Your task to perform on an android device: Search for seafood restaurants on Google Maps Image 0: 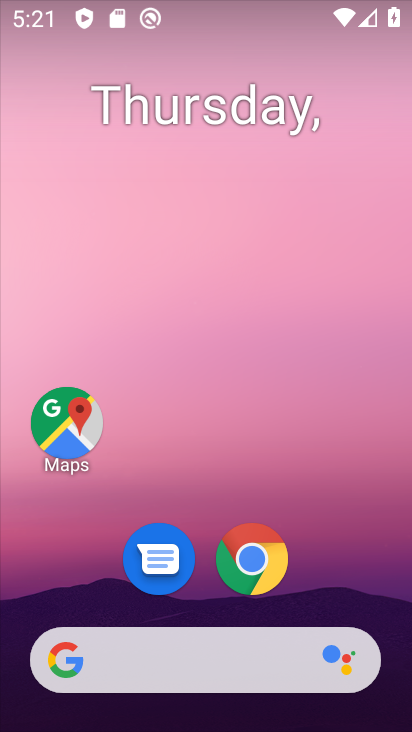
Step 0: drag from (215, 563) to (268, 78)
Your task to perform on an android device: Search for seafood restaurants on Google Maps Image 1: 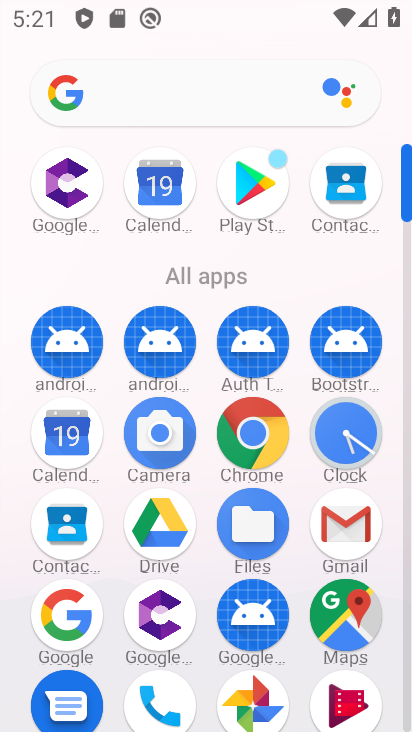
Step 1: click (338, 626)
Your task to perform on an android device: Search for seafood restaurants on Google Maps Image 2: 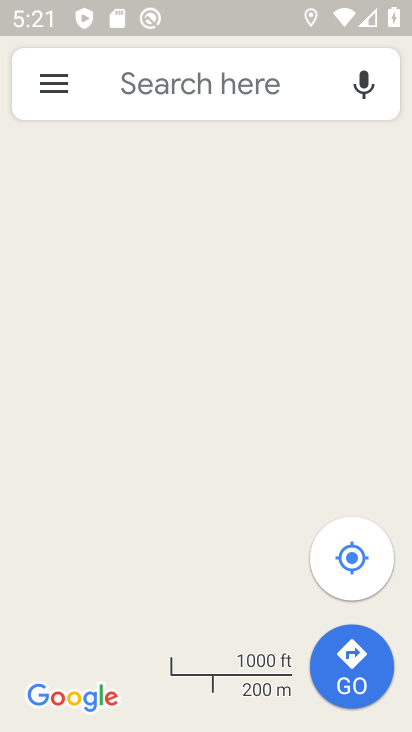
Step 2: click (160, 92)
Your task to perform on an android device: Search for seafood restaurants on Google Maps Image 3: 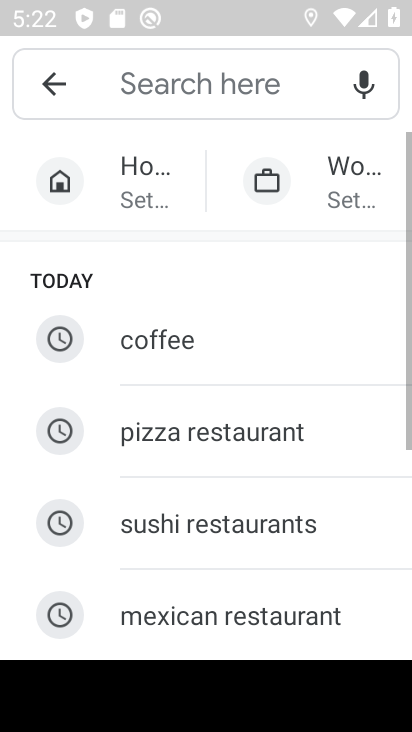
Step 3: type "seafood restaurants"
Your task to perform on an android device: Search for seafood restaurants on Google Maps Image 4: 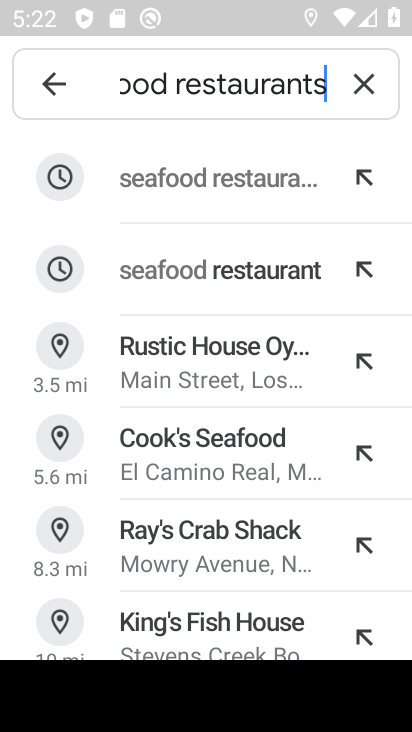
Step 4: click (197, 196)
Your task to perform on an android device: Search for seafood restaurants on Google Maps Image 5: 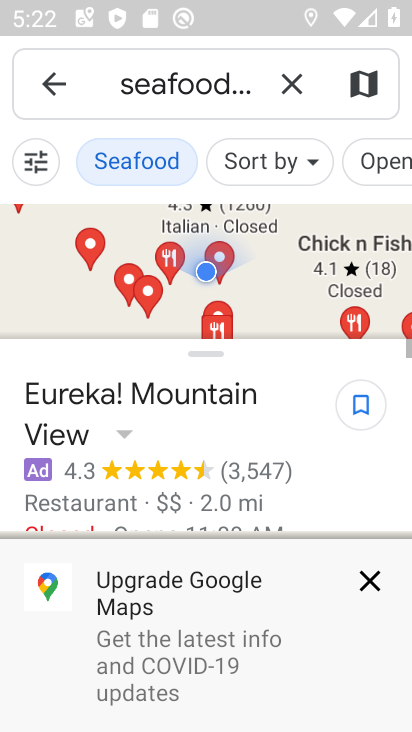
Step 5: task complete